Your task to perform on an android device: Open Yahoo.com Image 0: 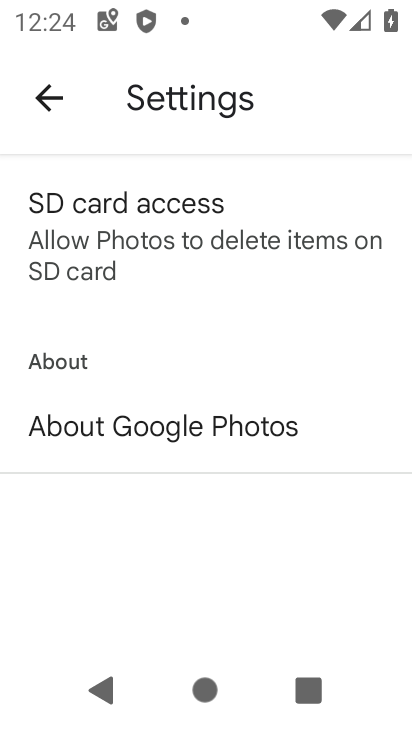
Step 0: press home button
Your task to perform on an android device: Open Yahoo.com Image 1: 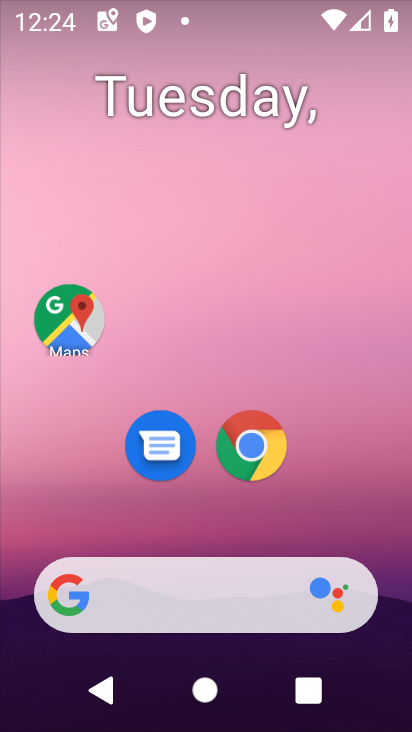
Step 1: drag from (357, 530) to (402, 153)
Your task to perform on an android device: Open Yahoo.com Image 2: 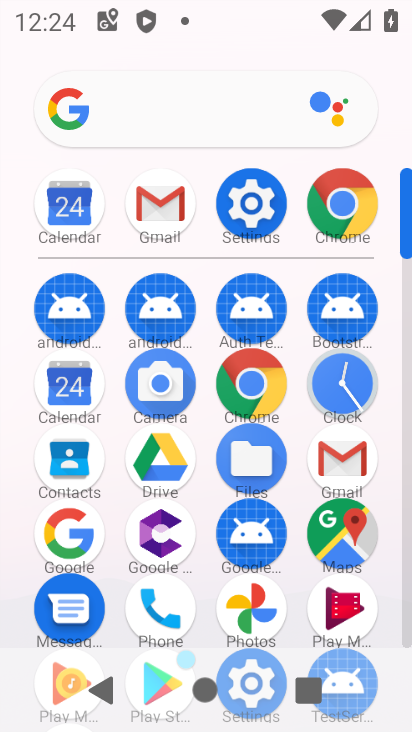
Step 2: click (328, 204)
Your task to perform on an android device: Open Yahoo.com Image 3: 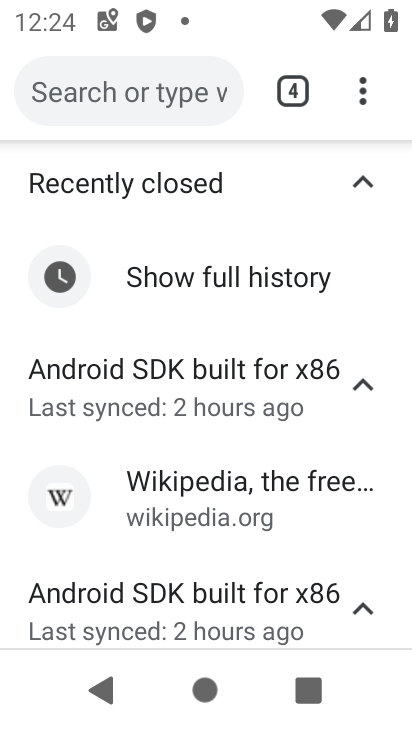
Step 3: click (145, 107)
Your task to perform on an android device: Open Yahoo.com Image 4: 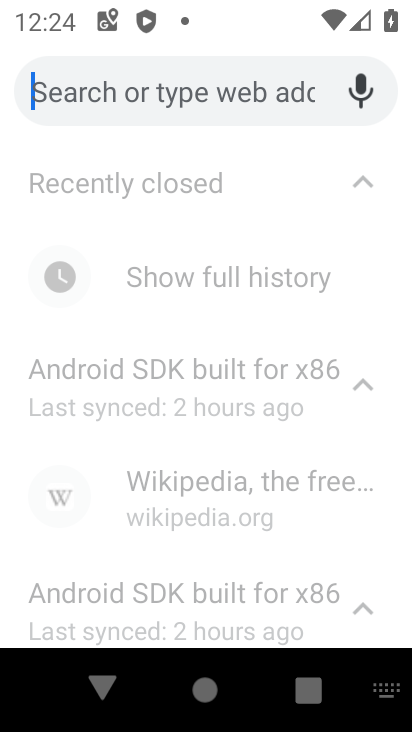
Step 4: type "yahoo"
Your task to perform on an android device: Open Yahoo.com Image 5: 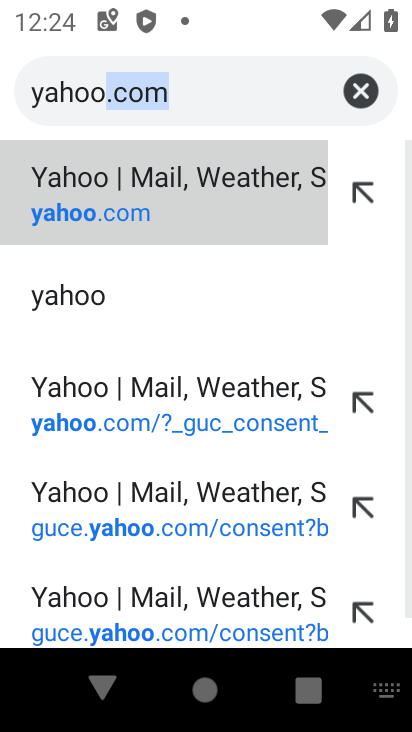
Step 5: click (184, 213)
Your task to perform on an android device: Open Yahoo.com Image 6: 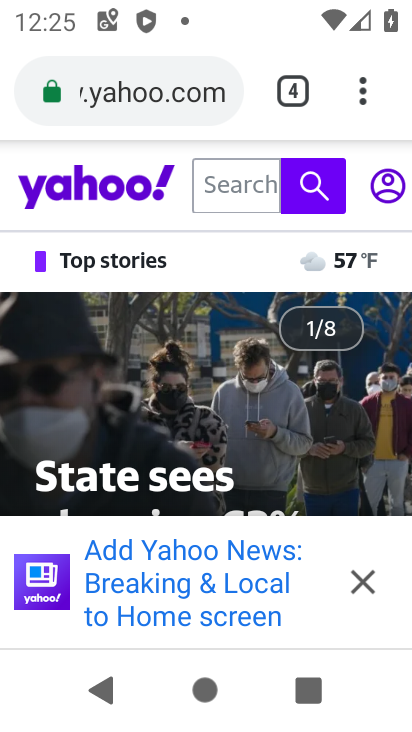
Step 6: task complete